Your task to perform on an android device: see tabs open on other devices in the chrome app Image 0: 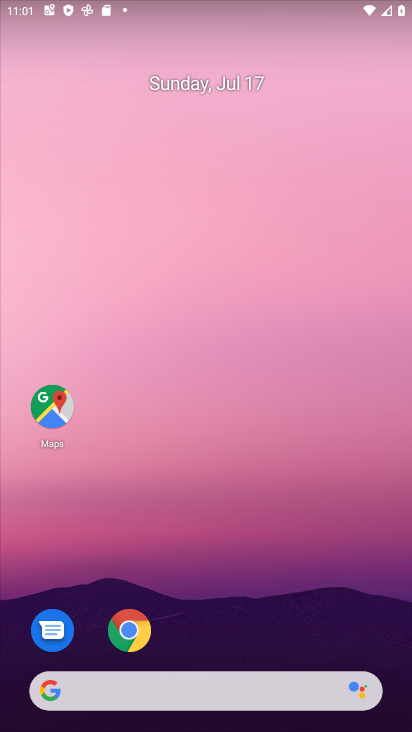
Step 0: click (124, 638)
Your task to perform on an android device: see tabs open on other devices in the chrome app Image 1: 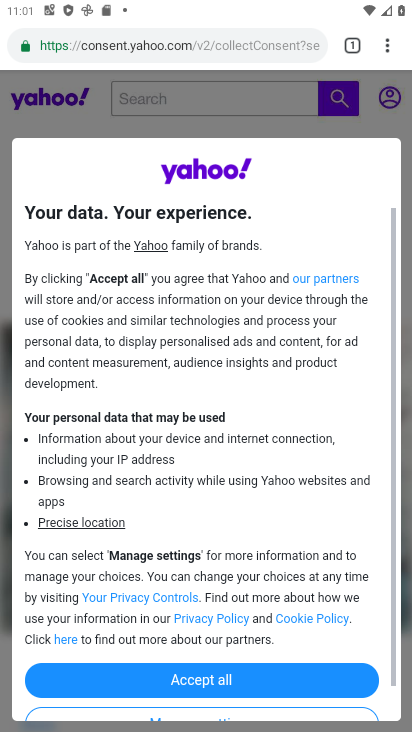
Step 1: click (353, 49)
Your task to perform on an android device: see tabs open on other devices in the chrome app Image 2: 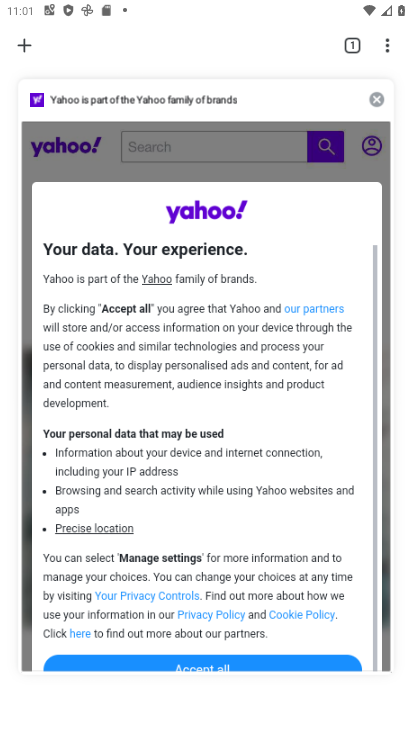
Step 2: click (24, 39)
Your task to perform on an android device: see tabs open on other devices in the chrome app Image 3: 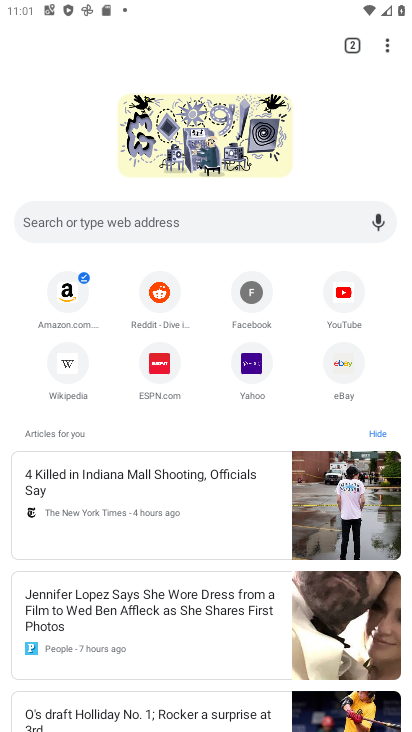
Step 3: click (391, 39)
Your task to perform on an android device: see tabs open on other devices in the chrome app Image 4: 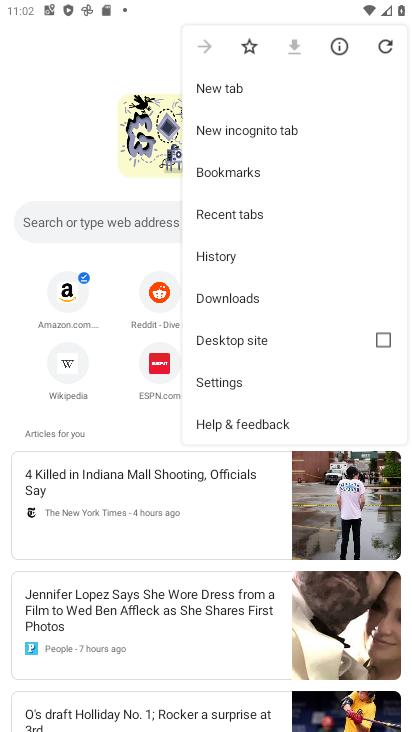
Step 4: click (221, 386)
Your task to perform on an android device: see tabs open on other devices in the chrome app Image 5: 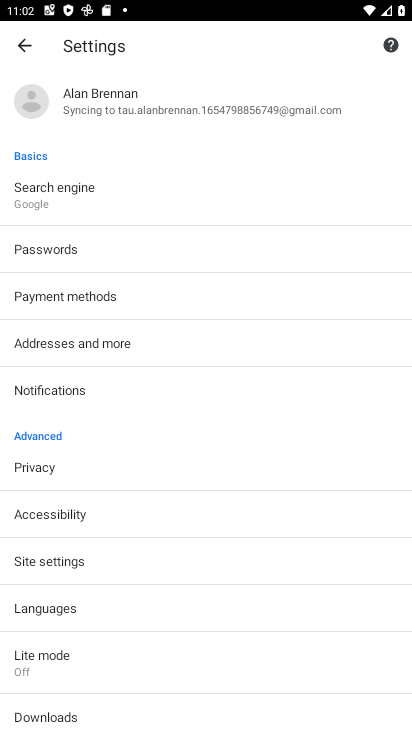
Step 5: drag from (272, 460) to (276, 410)
Your task to perform on an android device: see tabs open on other devices in the chrome app Image 6: 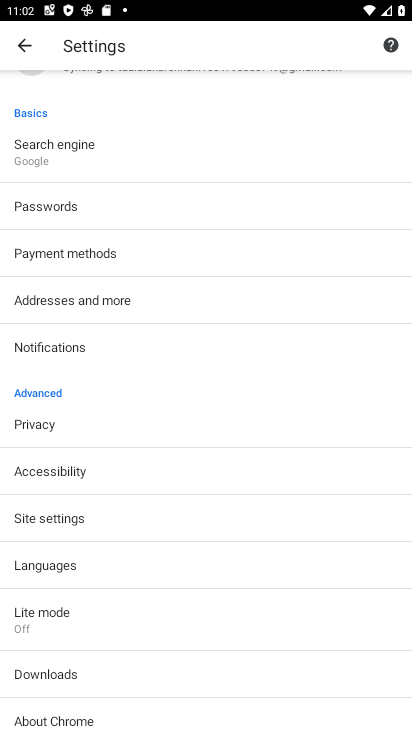
Step 6: click (128, 613)
Your task to perform on an android device: see tabs open on other devices in the chrome app Image 7: 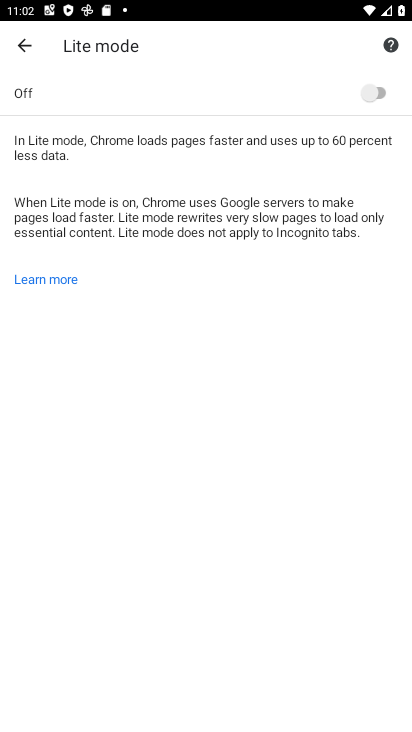
Step 7: click (34, 48)
Your task to perform on an android device: see tabs open on other devices in the chrome app Image 8: 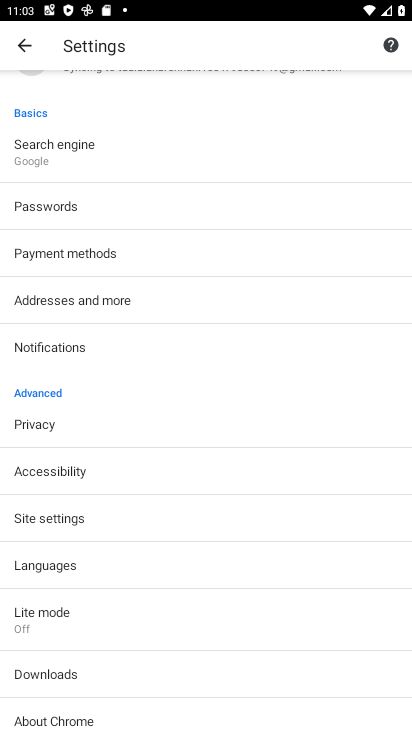
Step 8: task complete